Your task to perform on an android device: turn off location history Image 0: 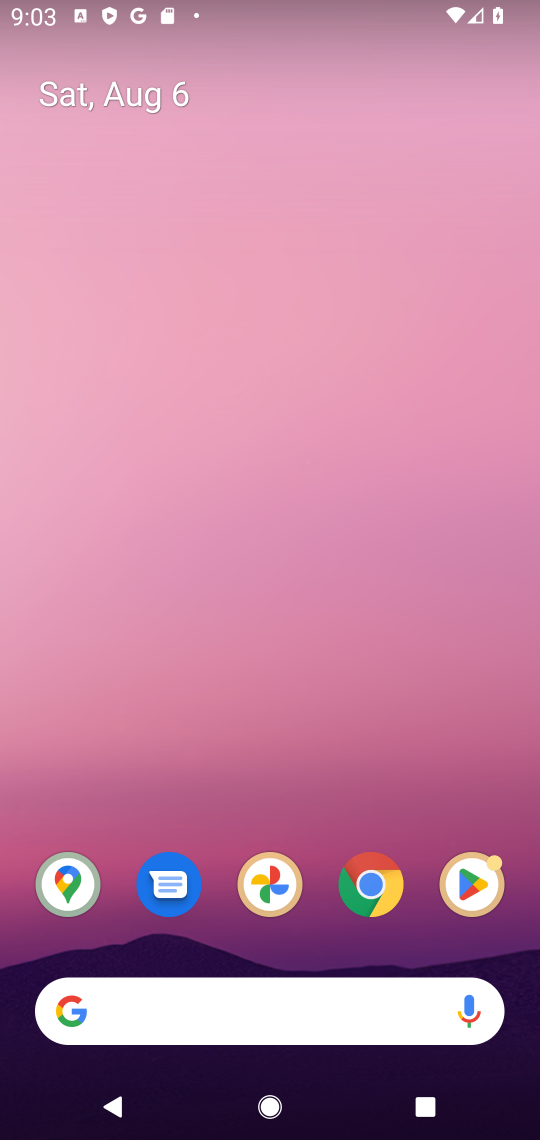
Step 0: click (71, 883)
Your task to perform on an android device: turn off location history Image 1: 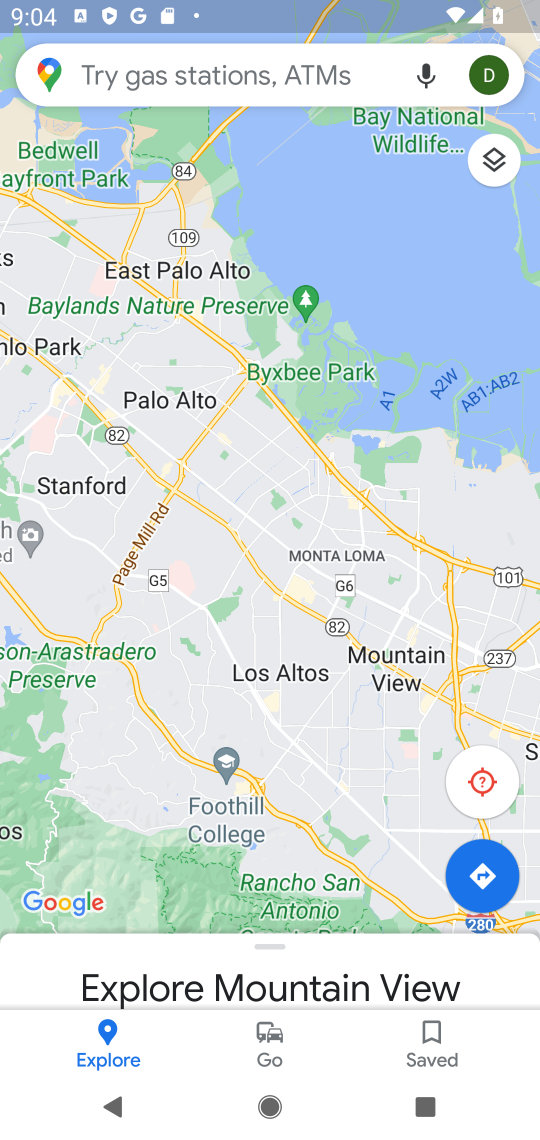
Step 1: click (482, 80)
Your task to perform on an android device: turn off location history Image 2: 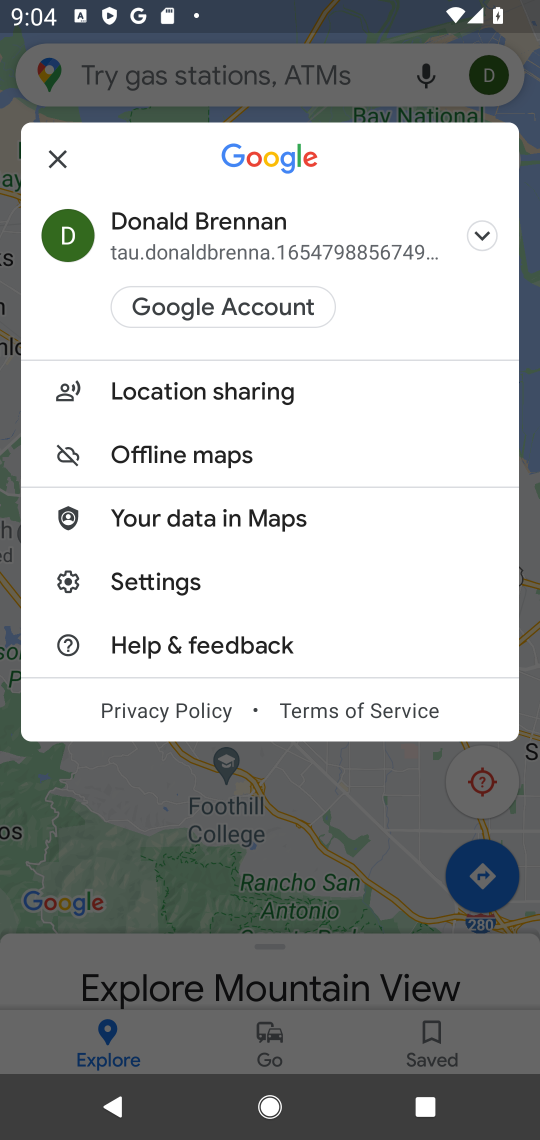
Step 2: click (144, 590)
Your task to perform on an android device: turn off location history Image 3: 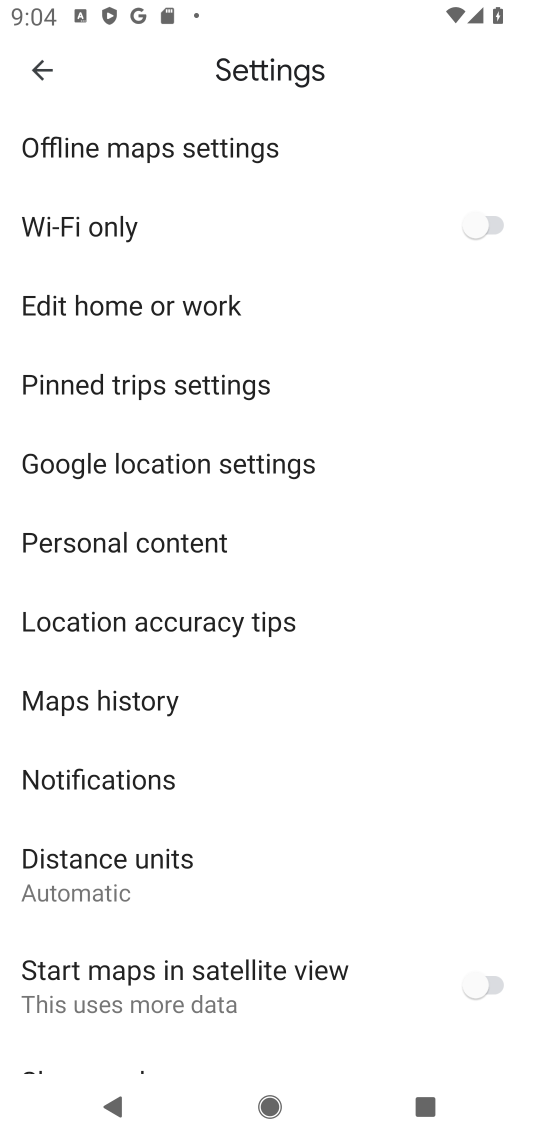
Step 3: click (99, 543)
Your task to perform on an android device: turn off location history Image 4: 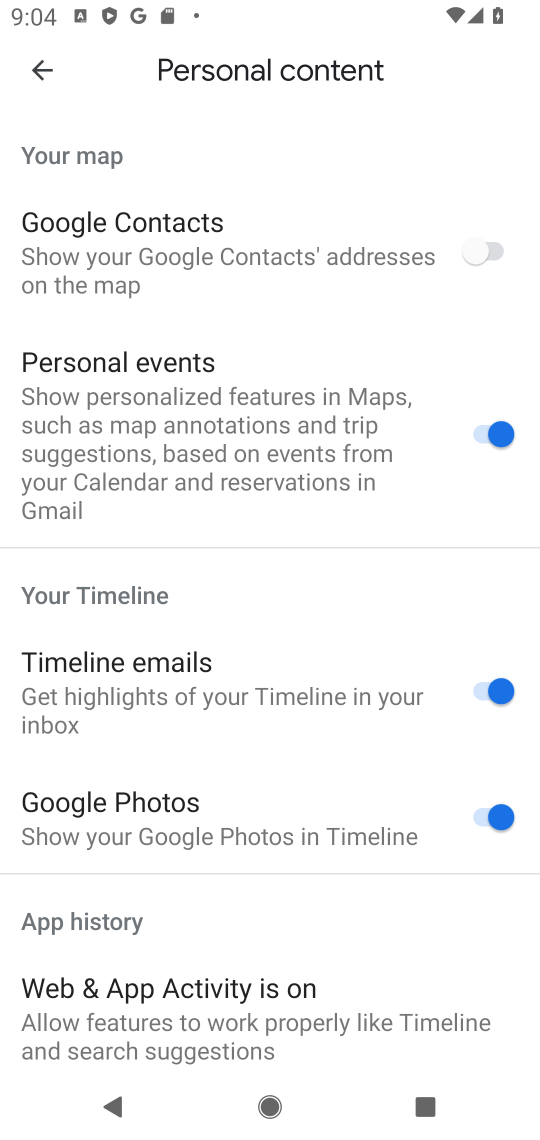
Step 4: drag from (290, 897) to (247, 344)
Your task to perform on an android device: turn off location history Image 5: 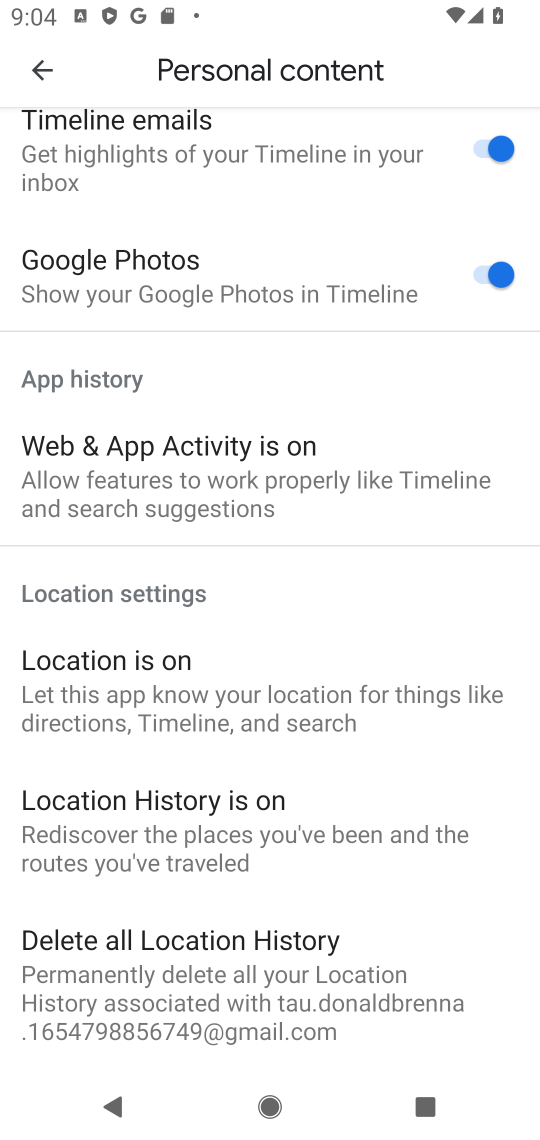
Step 5: drag from (253, 904) to (255, 502)
Your task to perform on an android device: turn off location history Image 6: 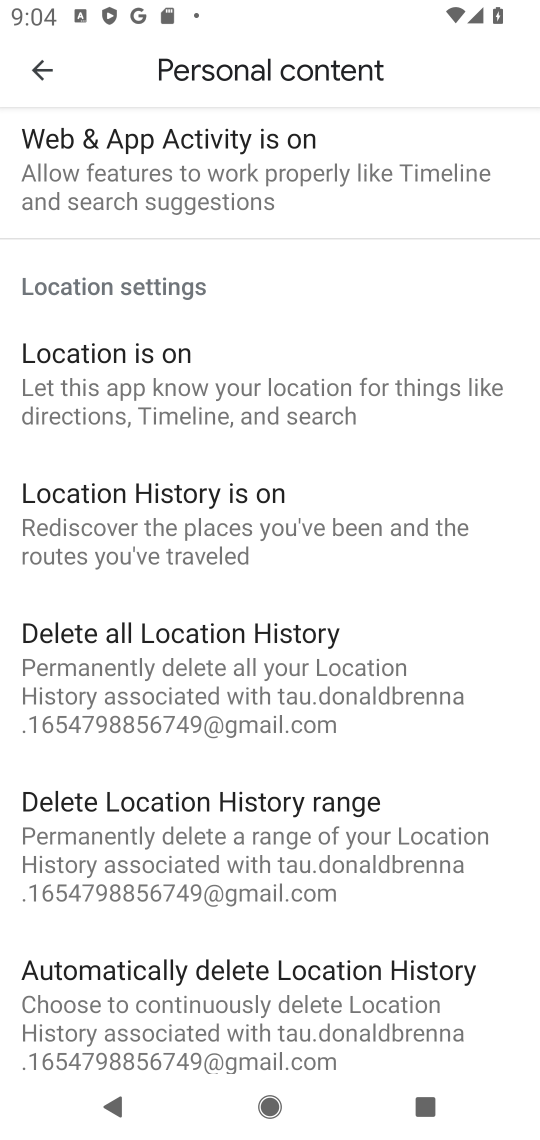
Step 6: click (205, 529)
Your task to perform on an android device: turn off location history Image 7: 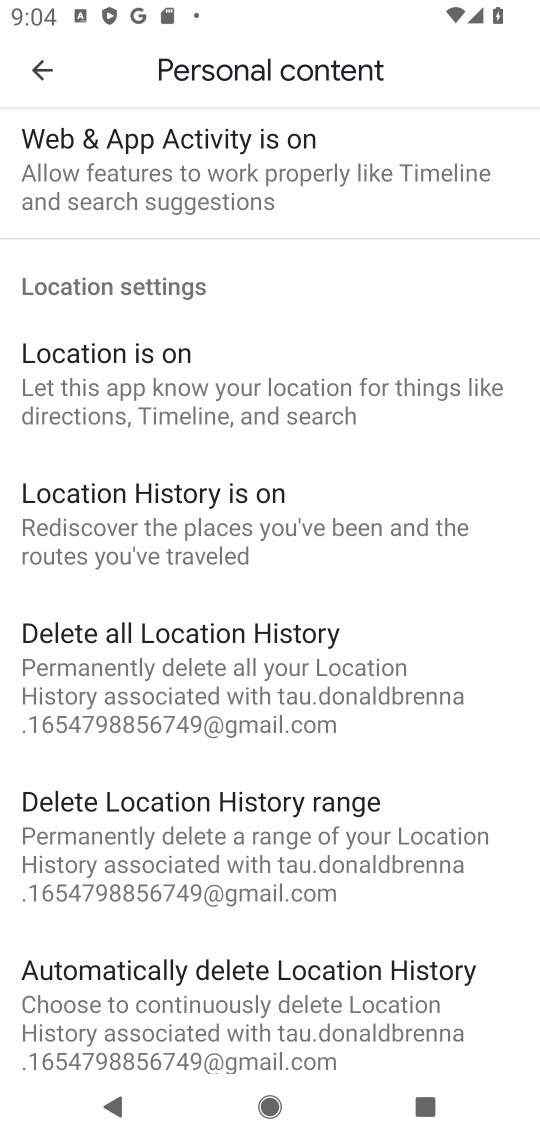
Step 7: click (155, 526)
Your task to perform on an android device: turn off location history Image 8: 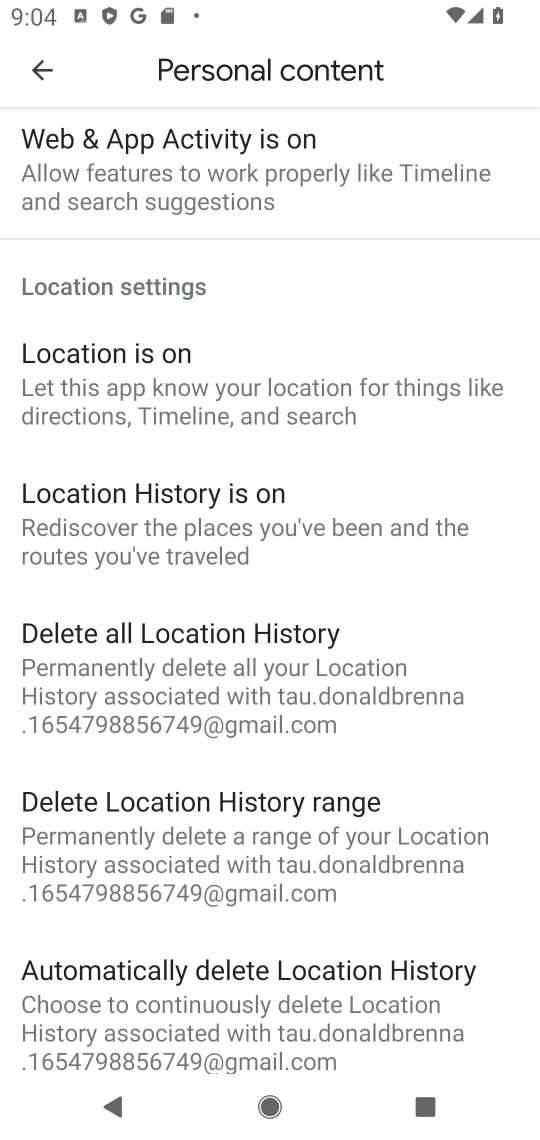
Step 8: click (172, 496)
Your task to perform on an android device: turn off location history Image 9: 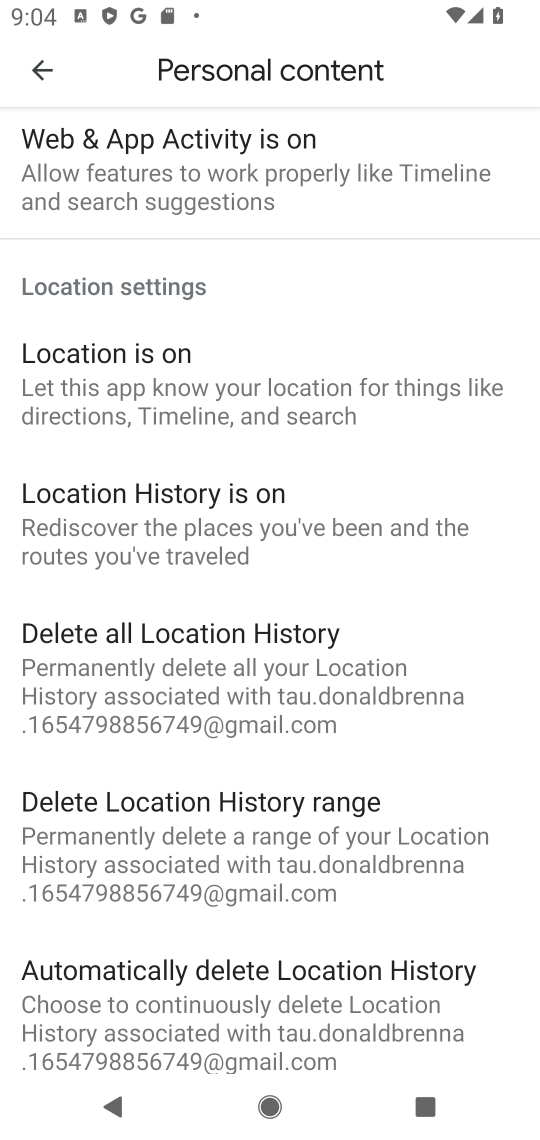
Step 9: click (146, 517)
Your task to perform on an android device: turn off location history Image 10: 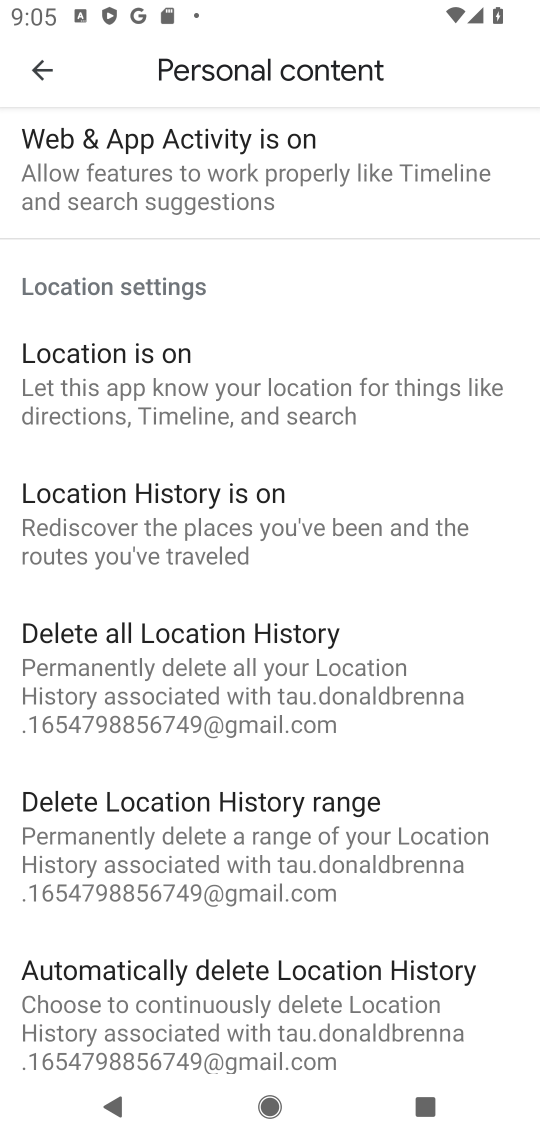
Step 10: click (146, 517)
Your task to perform on an android device: turn off location history Image 11: 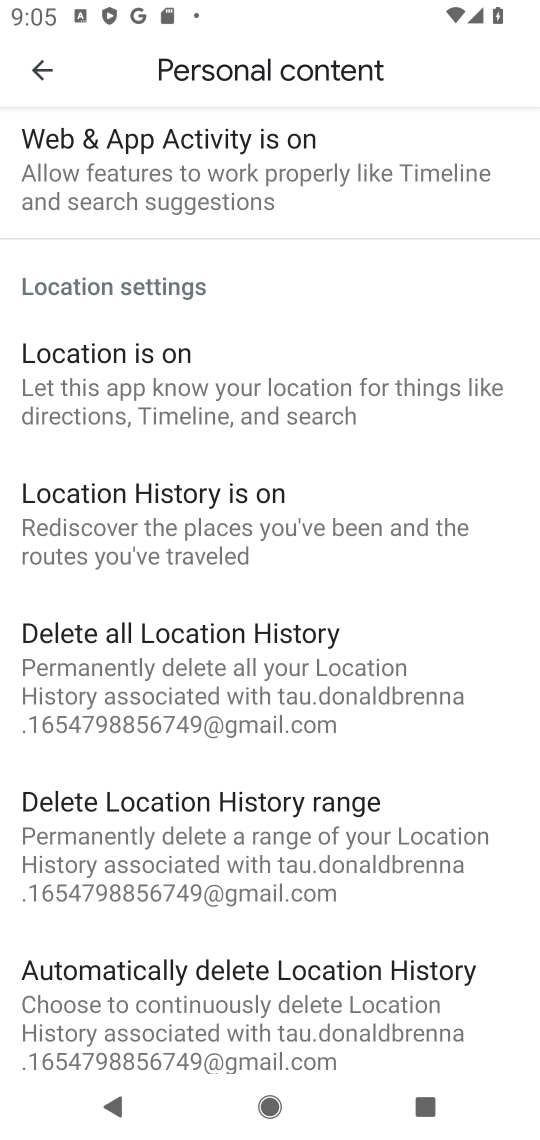
Step 11: task complete